Your task to perform on an android device: show emergency info Image 0: 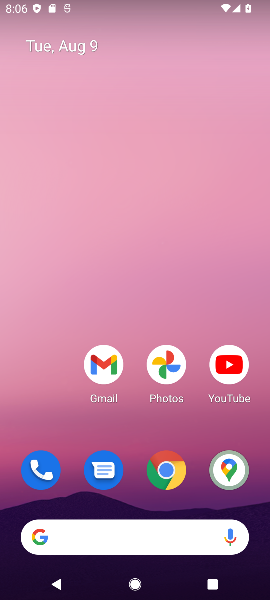
Step 0: drag from (105, 532) to (136, 70)
Your task to perform on an android device: show emergency info Image 1: 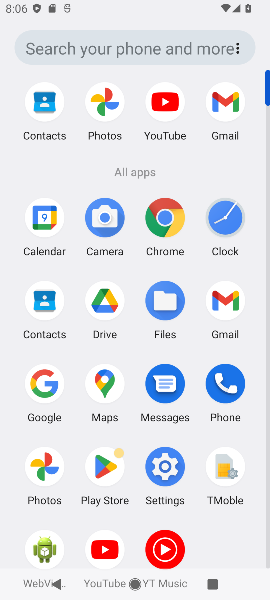
Step 1: click (166, 465)
Your task to perform on an android device: show emergency info Image 2: 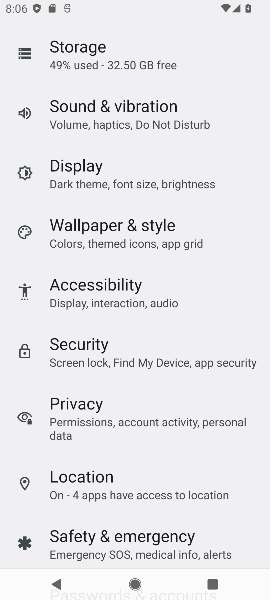
Step 2: drag from (135, 468) to (171, 338)
Your task to perform on an android device: show emergency info Image 3: 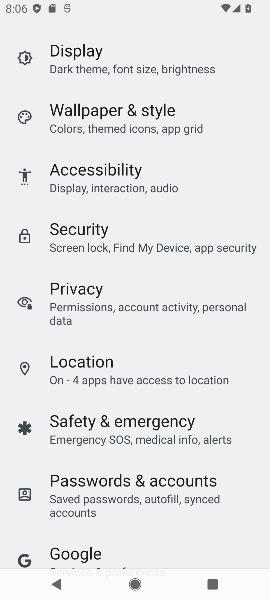
Step 3: click (157, 423)
Your task to perform on an android device: show emergency info Image 4: 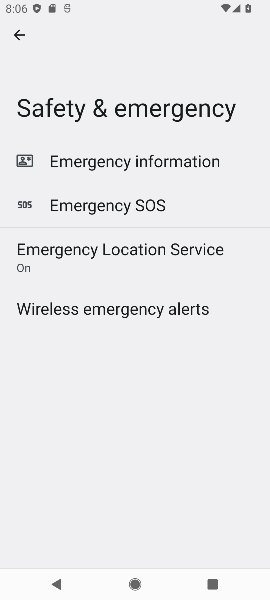
Step 4: click (147, 166)
Your task to perform on an android device: show emergency info Image 5: 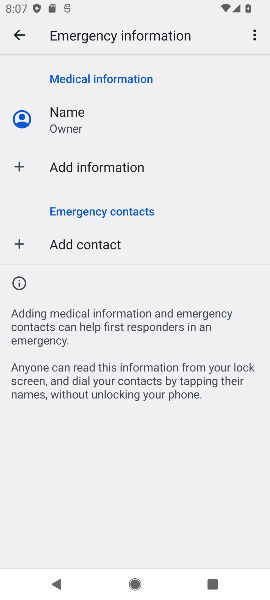
Step 5: task complete